Your task to perform on an android device: turn pop-ups on in chrome Image 0: 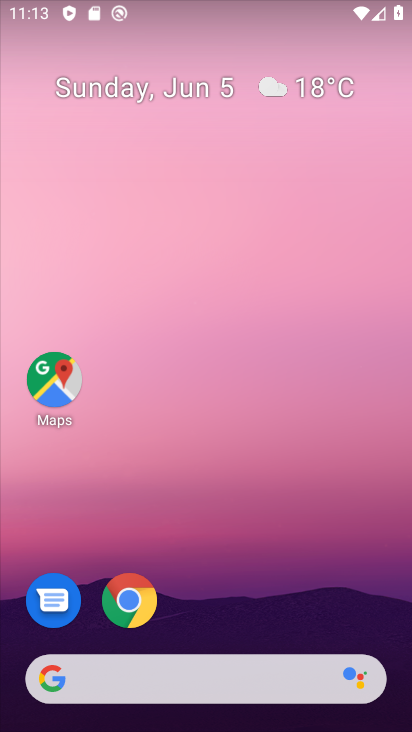
Step 0: drag from (263, 639) to (262, 21)
Your task to perform on an android device: turn pop-ups on in chrome Image 1: 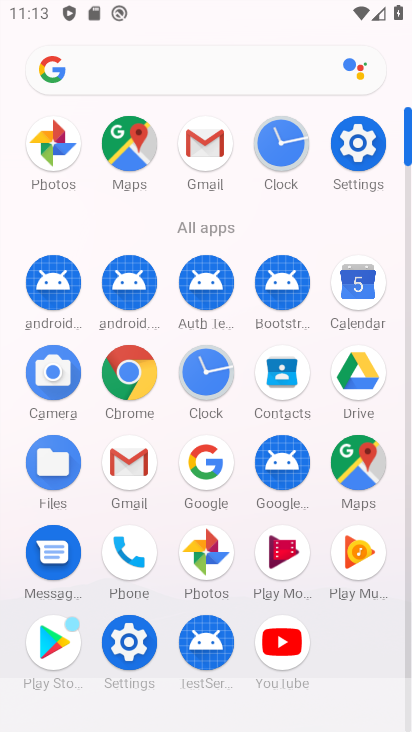
Step 1: drag from (237, 615) to (4, 619)
Your task to perform on an android device: turn pop-ups on in chrome Image 2: 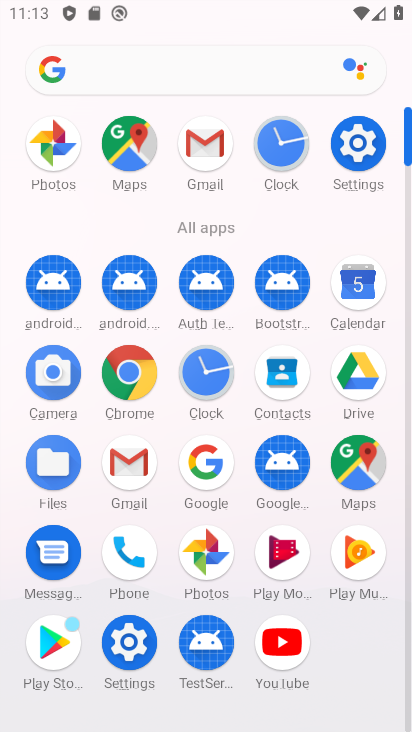
Step 2: click (124, 369)
Your task to perform on an android device: turn pop-ups on in chrome Image 3: 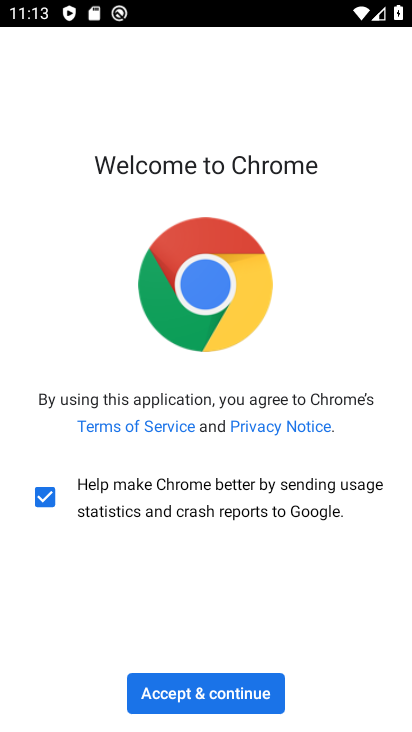
Step 3: click (212, 688)
Your task to perform on an android device: turn pop-ups on in chrome Image 4: 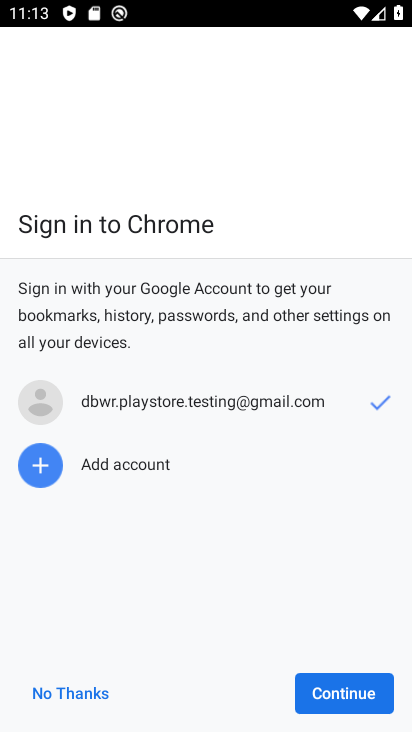
Step 4: click (348, 700)
Your task to perform on an android device: turn pop-ups on in chrome Image 5: 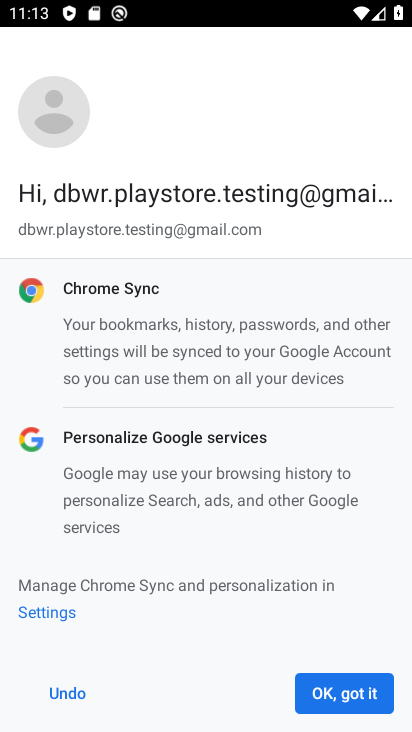
Step 5: click (351, 697)
Your task to perform on an android device: turn pop-ups on in chrome Image 6: 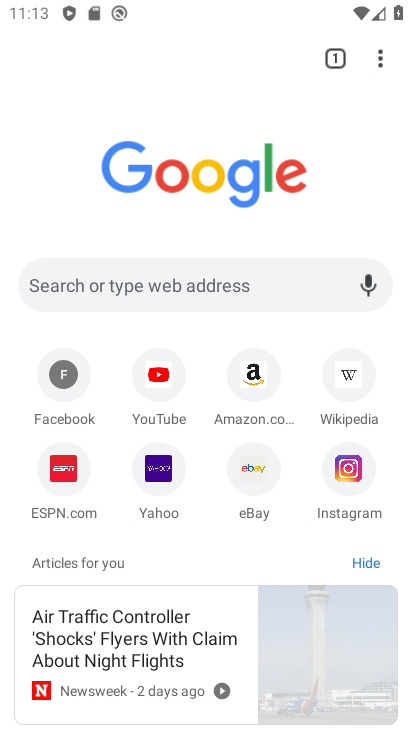
Step 6: drag from (376, 61) to (355, 106)
Your task to perform on an android device: turn pop-ups on in chrome Image 7: 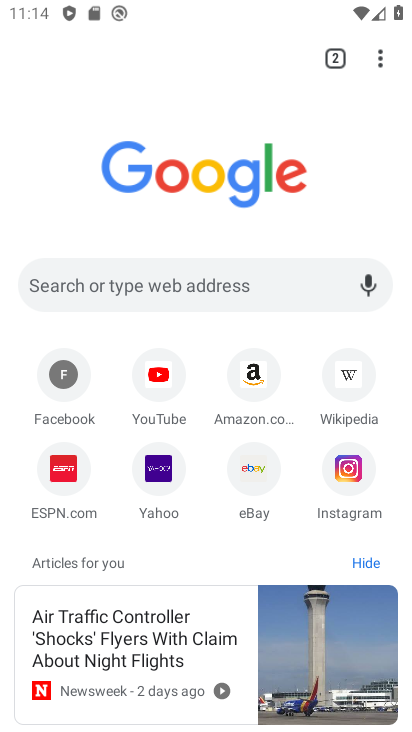
Step 7: drag from (376, 58) to (159, 484)
Your task to perform on an android device: turn pop-ups on in chrome Image 8: 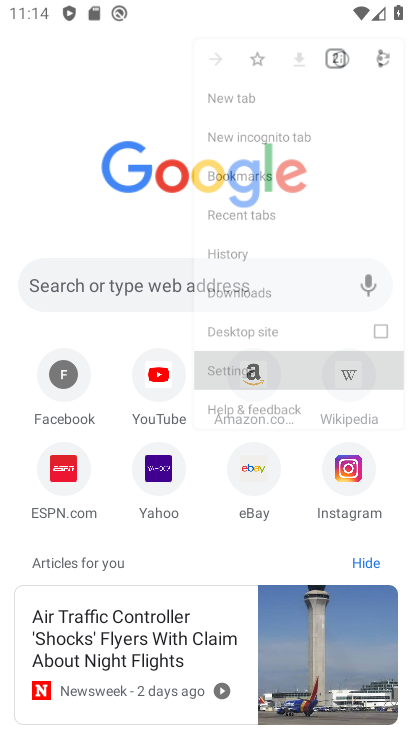
Step 8: click (160, 485)
Your task to perform on an android device: turn pop-ups on in chrome Image 9: 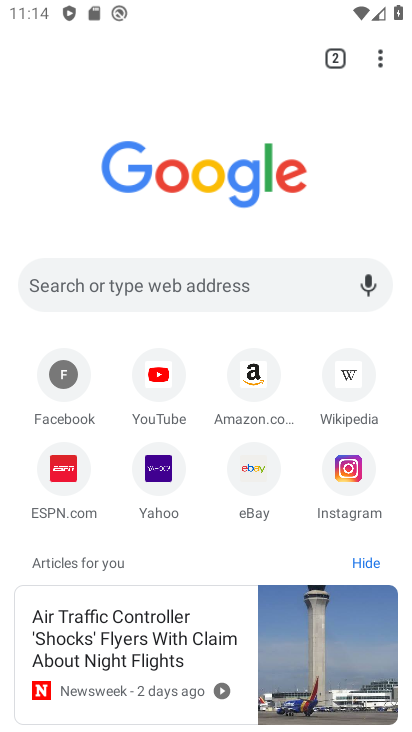
Step 9: click (170, 491)
Your task to perform on an android device: turn pop-ups on in chrome Image 10: 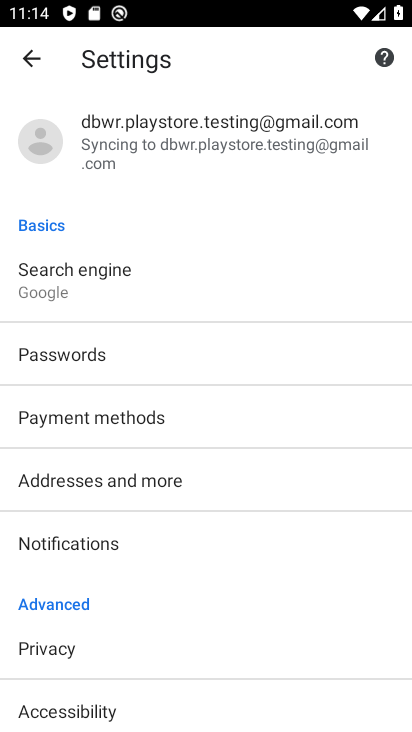
Step 10: drag from (189, 402) to (267, 77)
Your task to perform on an android device: turn pop-ups on in chrome Image 11: 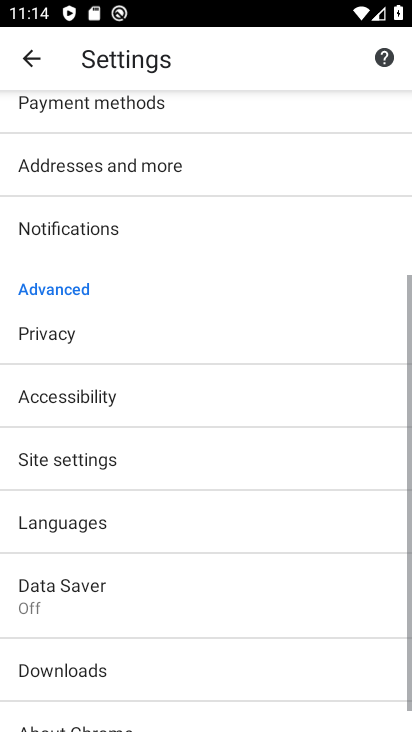
Step 11: drag from (246, 453) to (212, 192)
Your task to perform on an android device: turn pop-ups on in chrome Image 12: 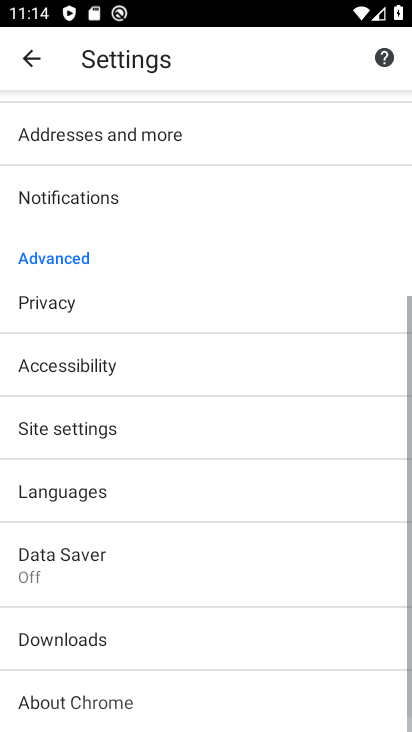
Step 12: drag from (197, 392) to (161, 135)
Your task to perform on an android device: turn pop-ups on in chrome Image 13: 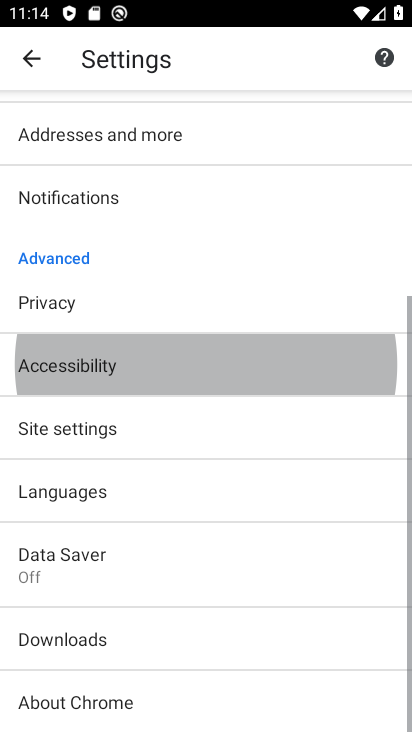
Step 13: drag from (149, 532) to (100, 142)
Your task to perform on an android device: turn pop-ups on in chrome Image 14: 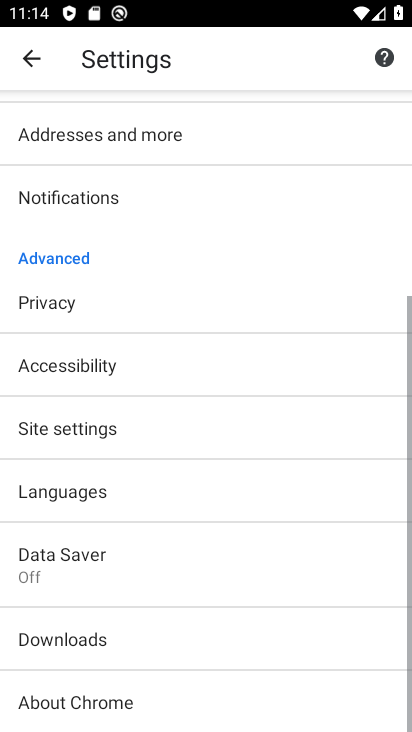
Step 14: drag from (67, 270) to (61, 210)
Your task to perform on an android device: turn pop-ups on in chrome Image 15: 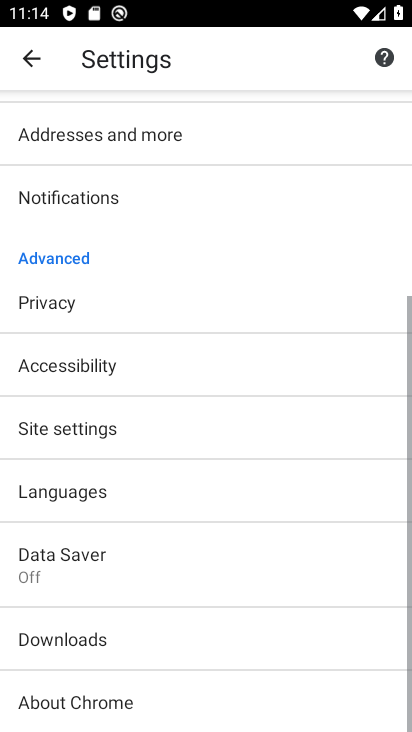
Step 15: drag from (96, 585) to (100, 201)
Your task to perform on an android device: turn pop-ups on in chrome Image 16: 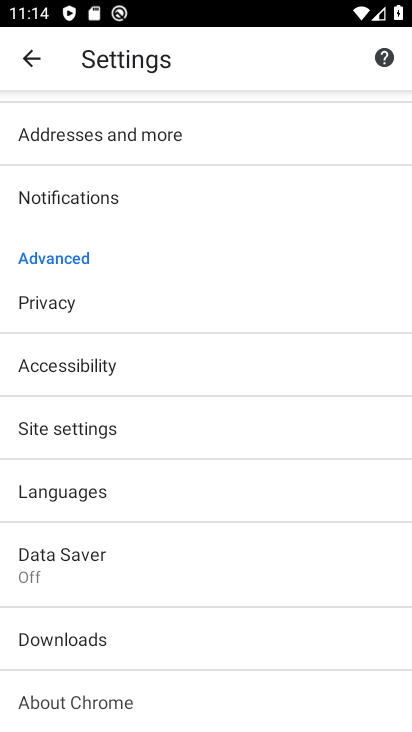
Step 16: drag from (114, 491) to (114, 226)
Your task to perform on an android device: turn pop-ups on in chrome Image 17: 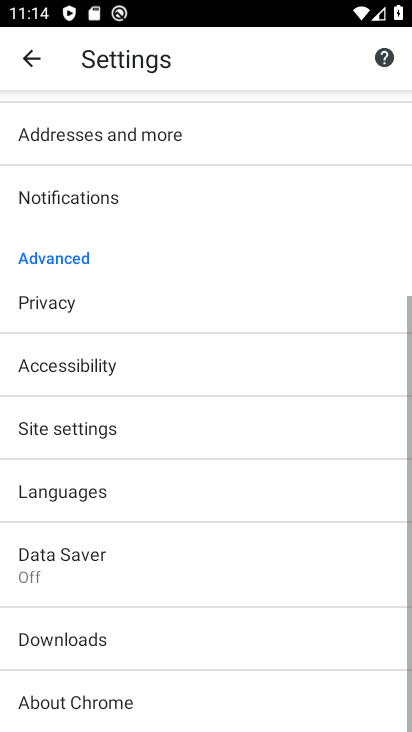
Step 17: click (48, 425)
Your task to perform on an android device: turn pop-ups on in chrome Image 18: 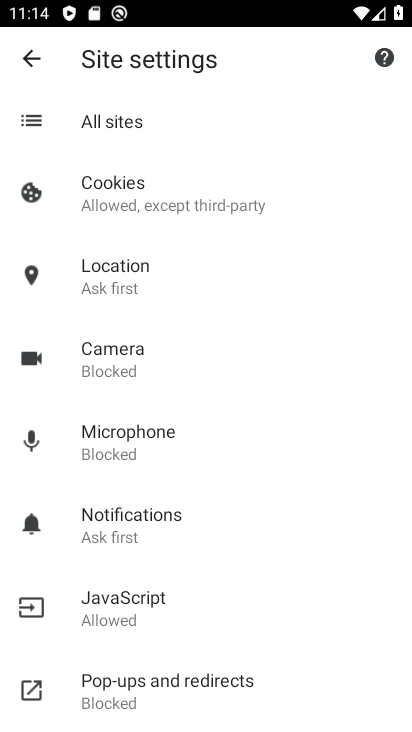
Step 18: click (135, 687)
Your task to perform on an android device: turn pop-ups on in chrome Image 19: 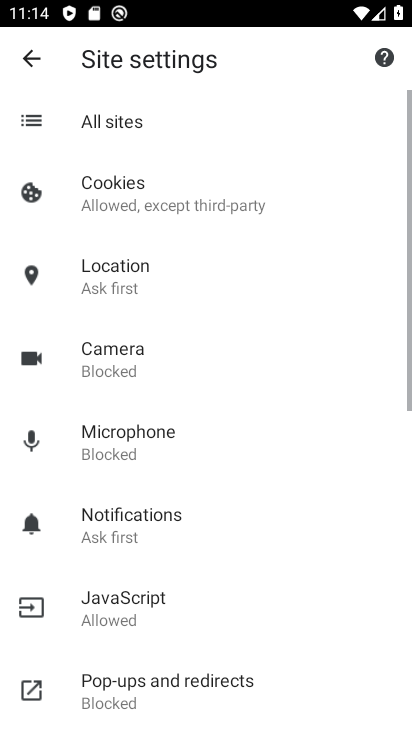
Step 19: click (135, 686)
Your task to perform on an android device: turn pop-ups on in chrome Image 20: 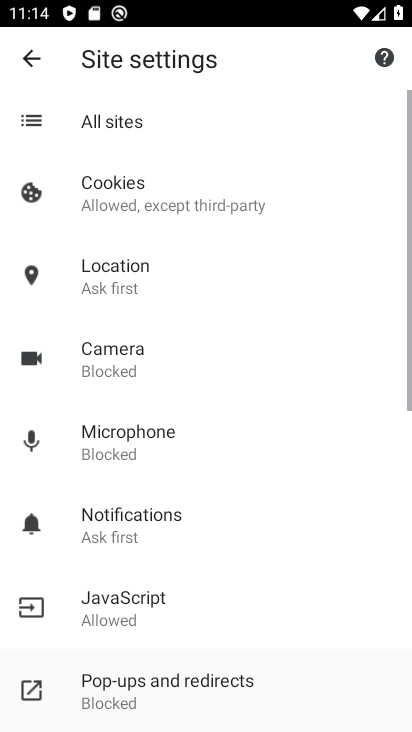
Step 20: click (133, 685)
Your task to perform on an android device: turn pop-ups on in chrome Image 21: 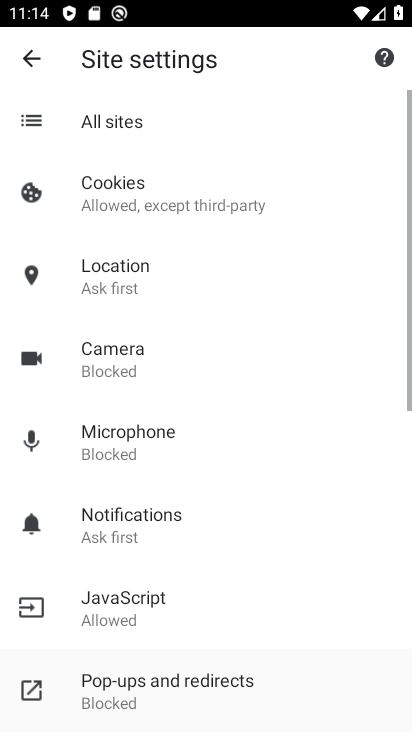
Step 21: click (133, 685)
Your task to perform on an android device: turn pop-ups on in chrome Image 22: 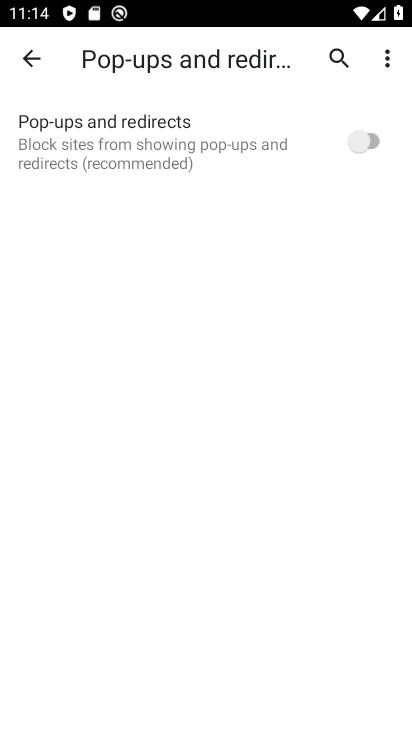
Step 22: click (351, 146)
Your task to perform on an android device: turn pop-ups on in chrome Image 23: 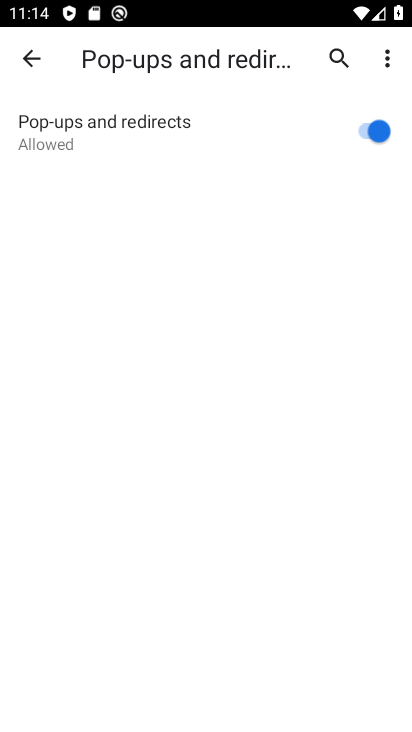
Step 23: task complete